Your task to perform on an android device: find snoozed emails in the gmail app Image 0: 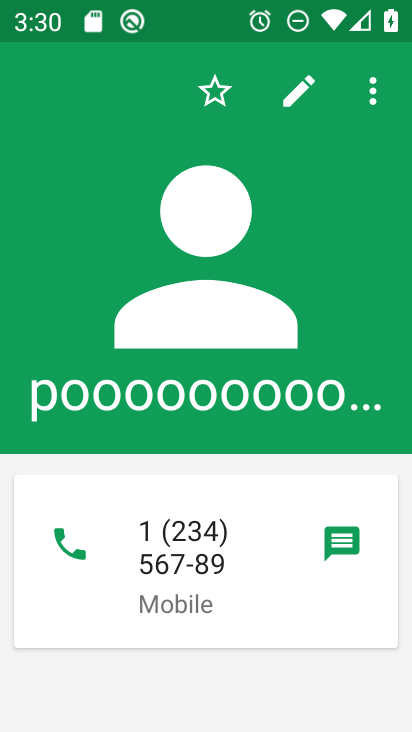
Step 0: press home button
Your task to perform on an android device: find snoozed emails in the gmail app Image 1: 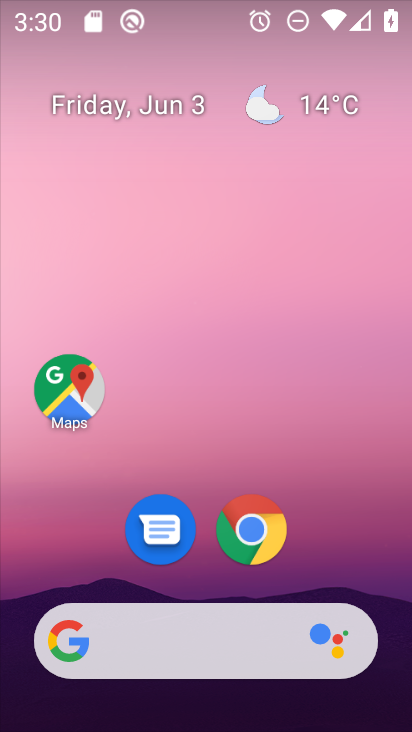
Step 1: drag from (374, 549) to (362, 218)
Your task to perform on an android device: find snoozed emails in the gmail app Image 2: 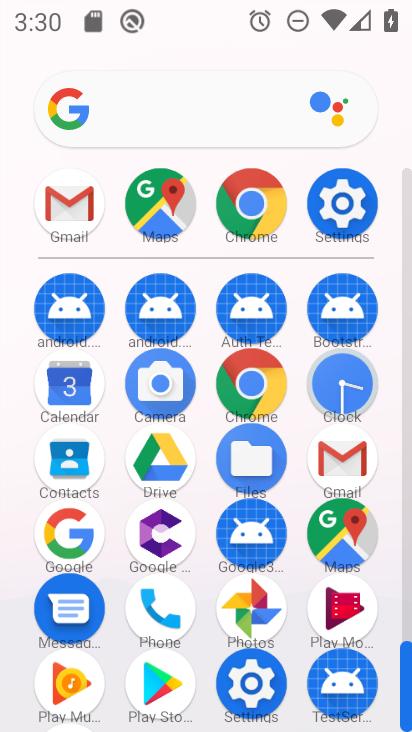
Step 2: click (349, 462)
Your task to perform on an android device: find snoozed emails in the gmail app Image 3: 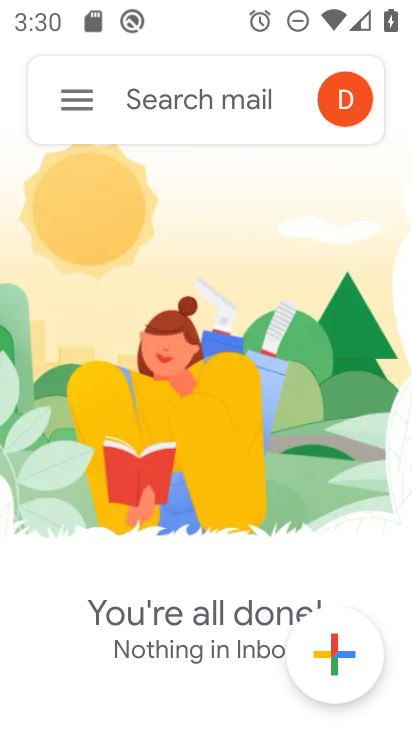
Step 3: click (81, 106)
Your task to perform on an android device: find snoozed emails in the gmail app Image 4: 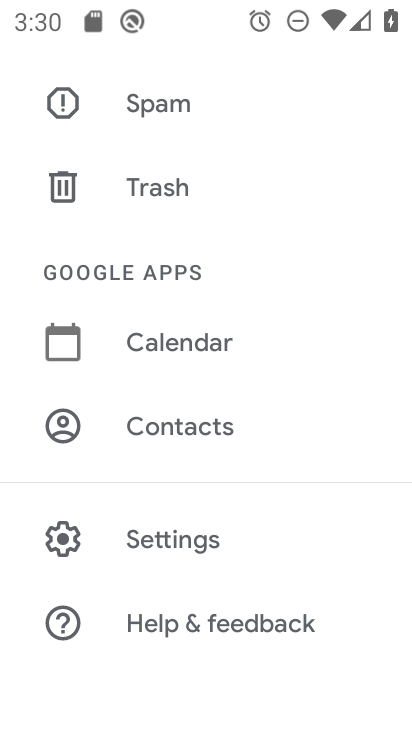
Step 4: drag from (318, 249) to (316, 321)
Your task to perform on an android device: find snoozed emails in the gmail app Image 5: 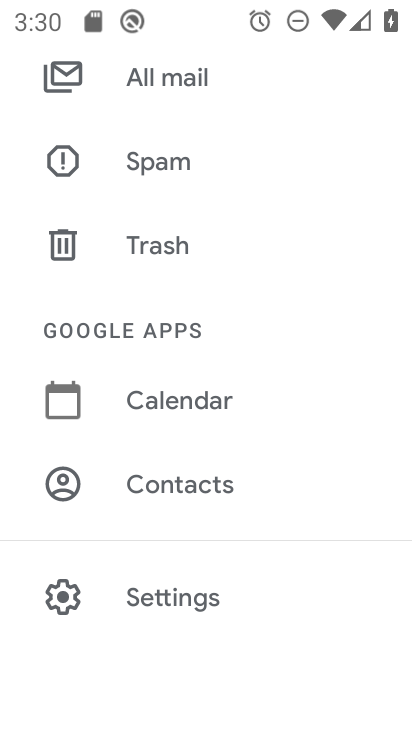
Step 5: drag from (337, 198) to (339, 290)
Your task to perform on an android device: find snoozed emails in the gmail app Image 6: 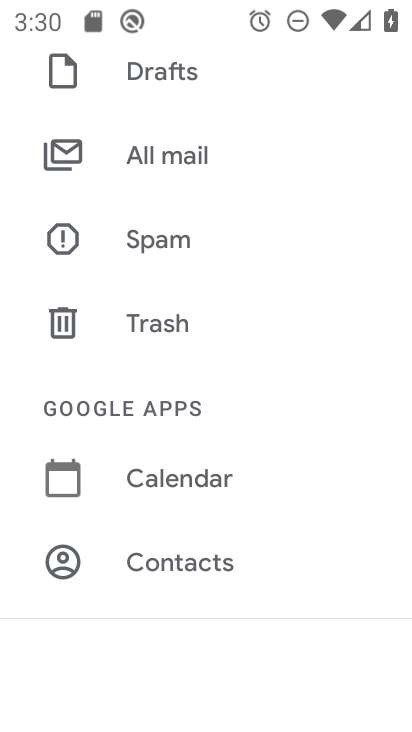
Step 6: drag from (322, 179) to (320, 312)
Your task to perform on an android device: find snoozed emails in the gmail app Image 7: 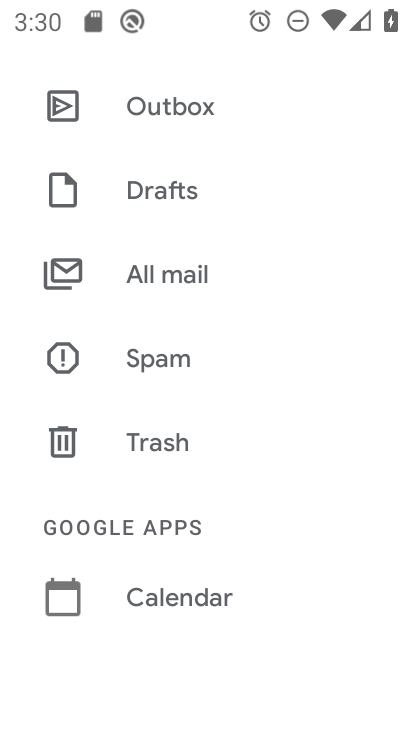
Step 7: drag from (313, 194) to (314, 314)
Your task to perform on an android device: find snoozed emails in the gmail app Image 8: 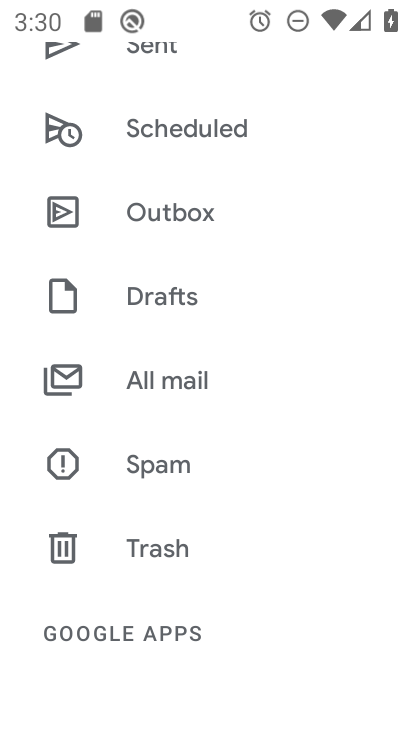
Step 8: drag from (297, 193) to (308, 251)
Your task to perform on an android device: find snoozed emails in the gmail app Image 9: 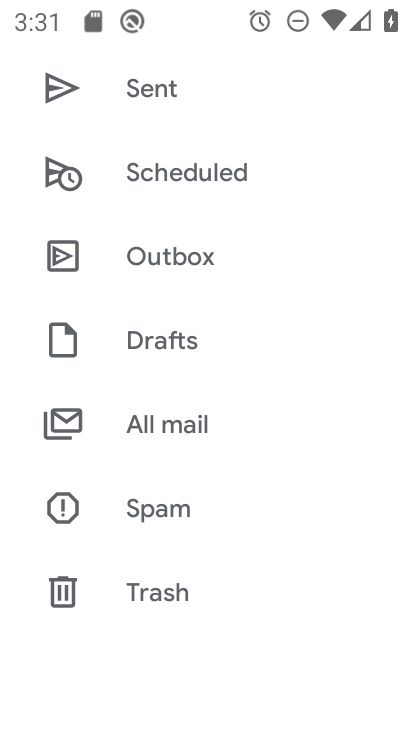
Step 9: drag from (311, 205) to (318, 328)
Your task to perform on an android device: find snoozed emails in the gmail app Image 10: 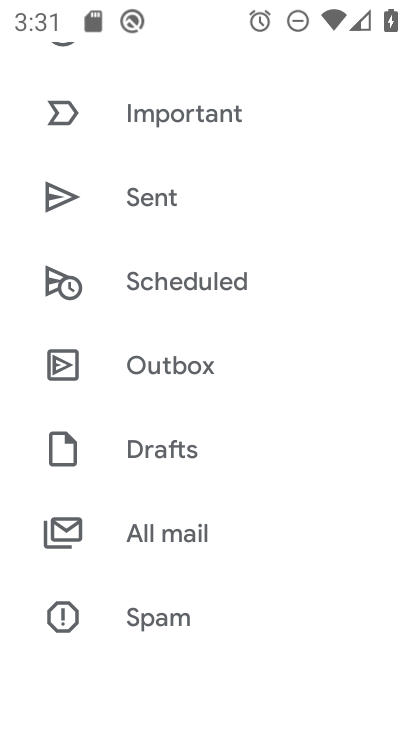
Step 10: drag from (314, 203) to (316, 319)
Your task to perform on an android device: find snoozed emails in the gmail app Image 11: 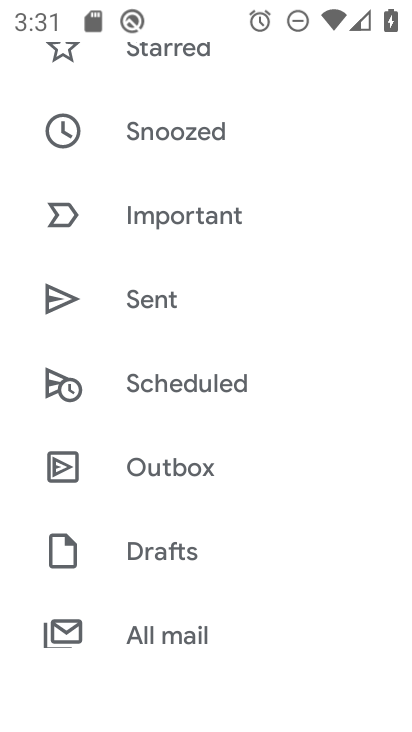
Step 11: drag from (318, 181) to (328, 332)
Your task to perform on an android device: find snoozed emails in the gmail app Image 12: 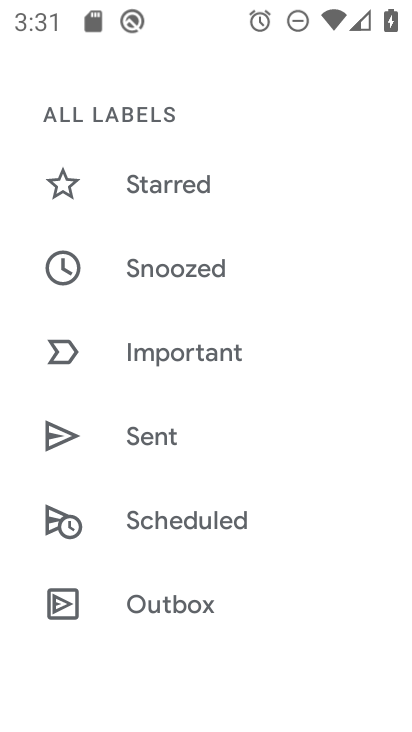
Step 12: click (238, 275)
Your task to perform on an android device: find snoozed emails in the gmail app Image 13: 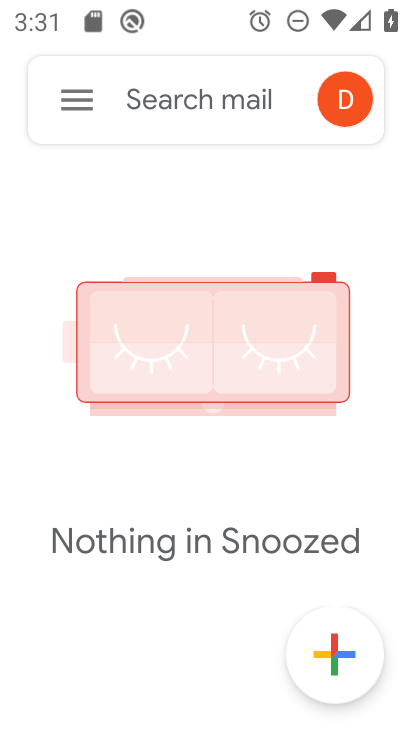
Step 13: task complete